Your task to perform on an android device: Open notification settings Image 0: 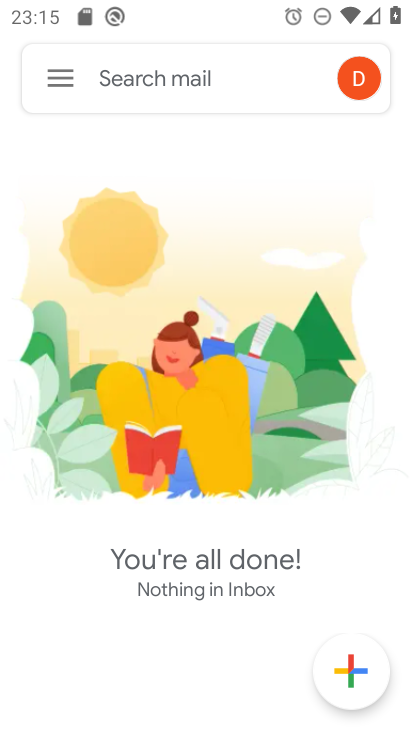
Step 0: press home button
Your task to perform on an android device: Open notification settings Image 1: 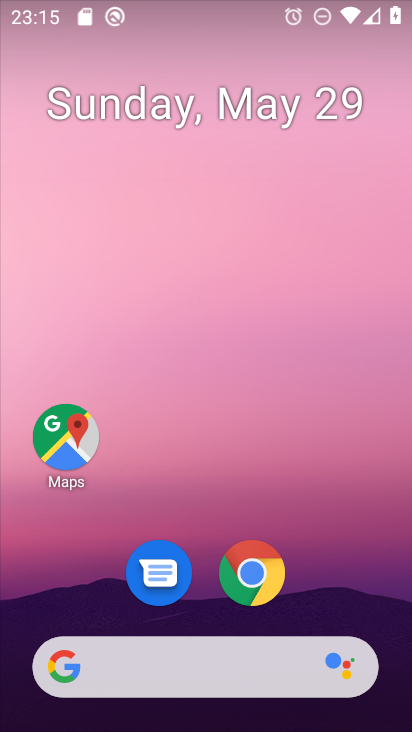
Step 1: drag from (265, 498) to (298, 19)
Your task to perform on an android device: Open notification settings Image 2: 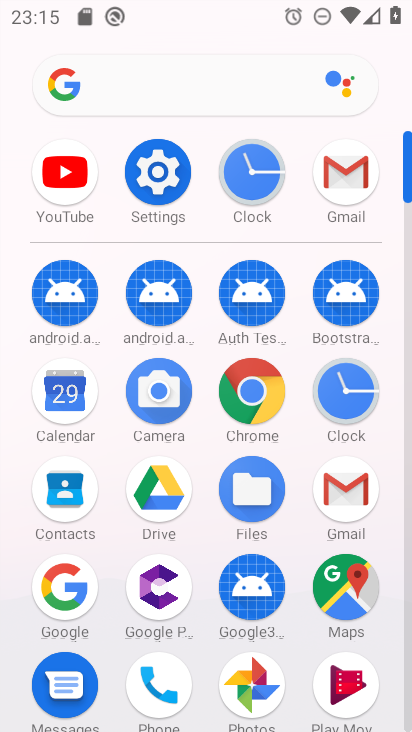
Step 2: click (166, 169)
Your task to perform on an android device: Open notification settings Image 3: 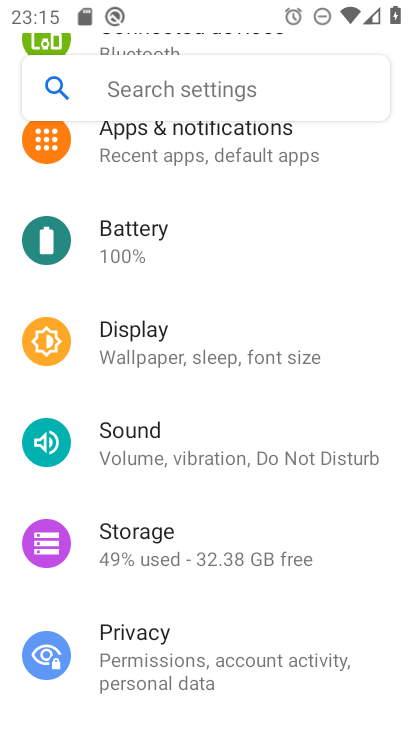
Step 3: click (231, 149)
Your task to perform on an android device: Open notification settings Image 4: 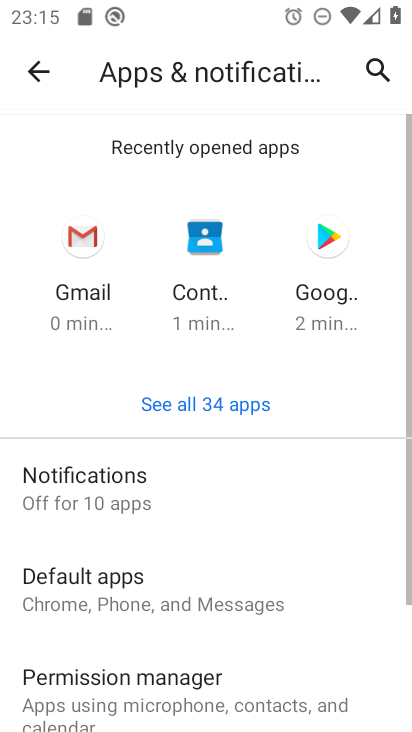
Step 4: click (125, 487)
Your task to perform on an android device: Open notification settings Image 5: 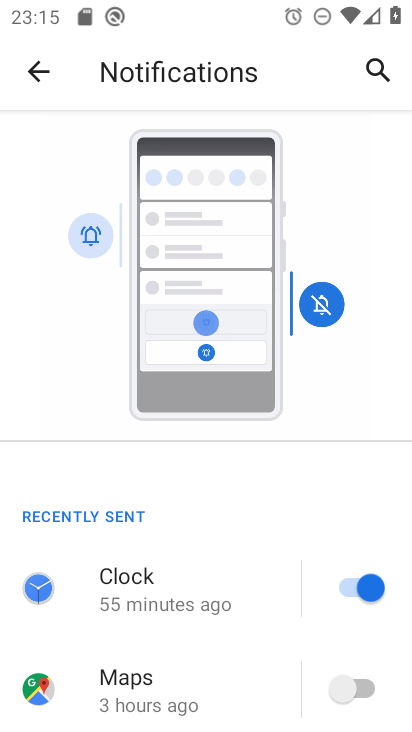
Step 5: task complete